Your task to perform on an android device: Open internet settings Image 0: 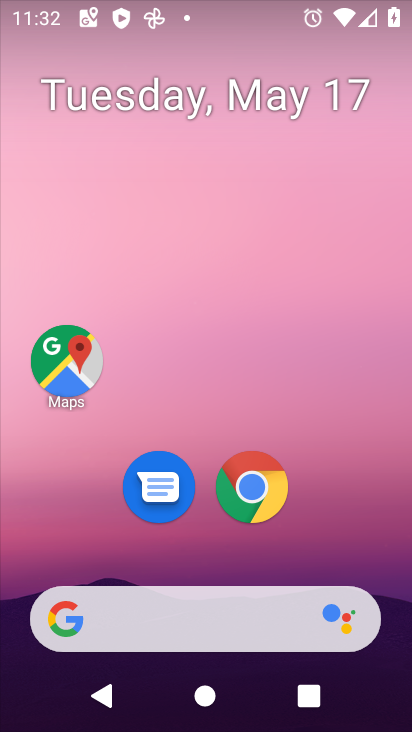
Step 0: press home button
Your task to perform on an android device: Open internet settings Image 1: 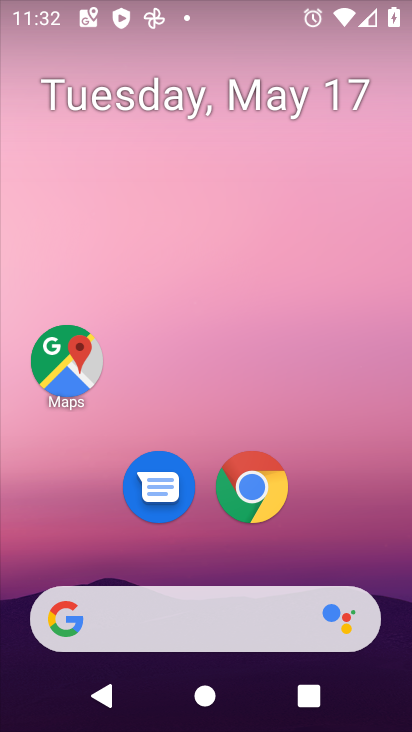
Step 1: drag from (331, 530) to (331, 63)
Your task to perform on an android device: Open internet settings Image 2: 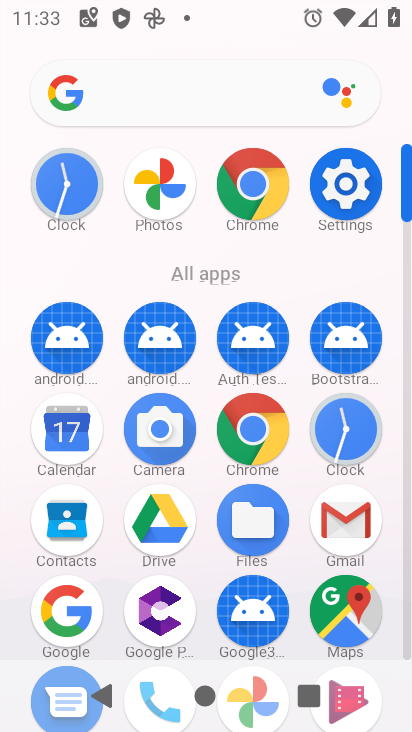
Step 2: click (351, 189)
Your task to perform on an android device: Open internet settings Image 3: 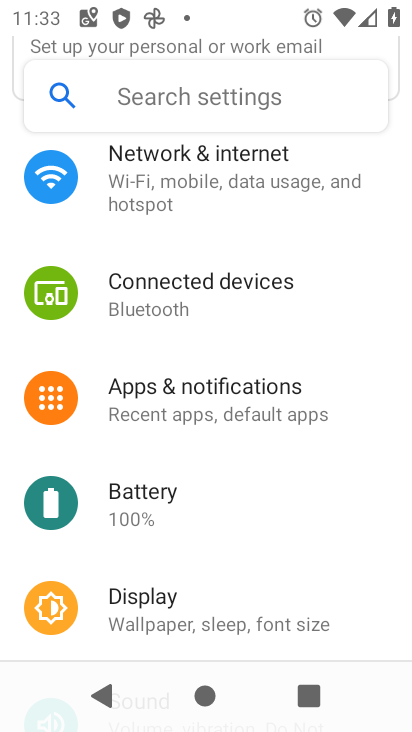
Step 3: drag from (308, 463) to (316, 243)
Your task to perform on an android device: Open internet settings Image 4: 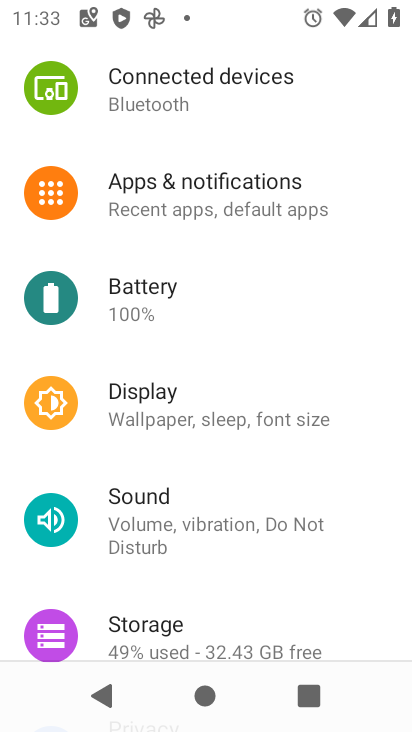
Step 4: drag from (211, 148) to (233, 419)
Your task to perform on an android device: Open internet settings Image 5: 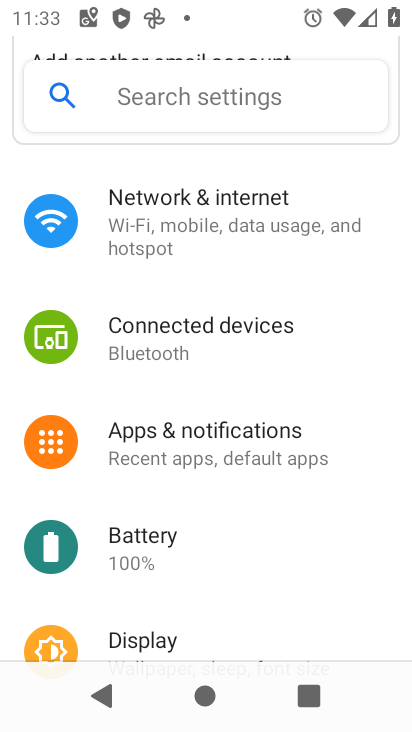
Step 5: drag from (237, 302) to (311, 727)
Your task to perform on an android device: Open internet settings Image 6: 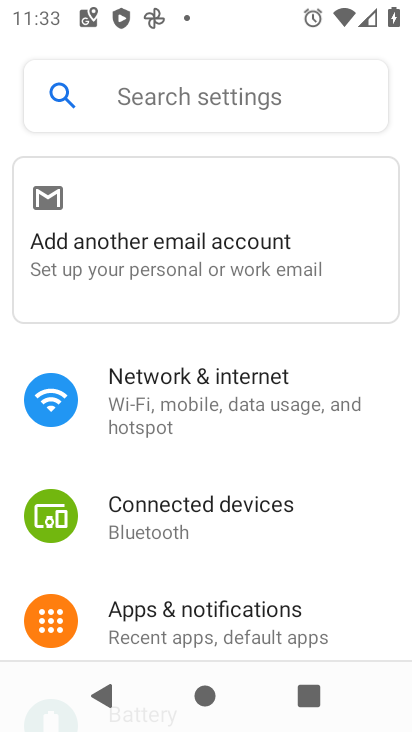
Step 6: click (288, 399)
Your task to perform on an android device: Open internet settings Image 7: 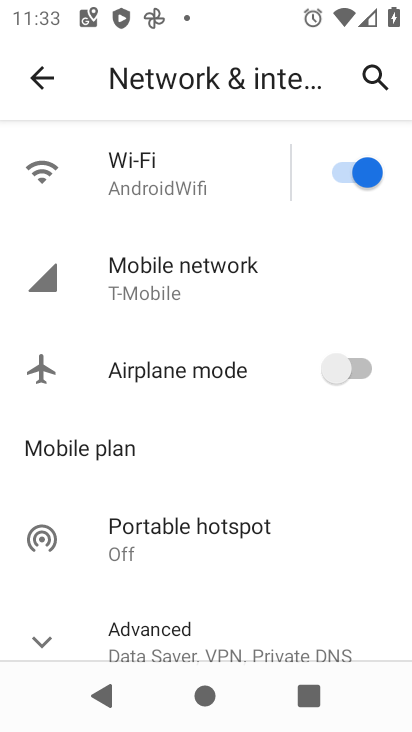
Step 7: task complete